Your task to perform on an android device: uninstall "ColorNote Notepad Notes" Image 0: 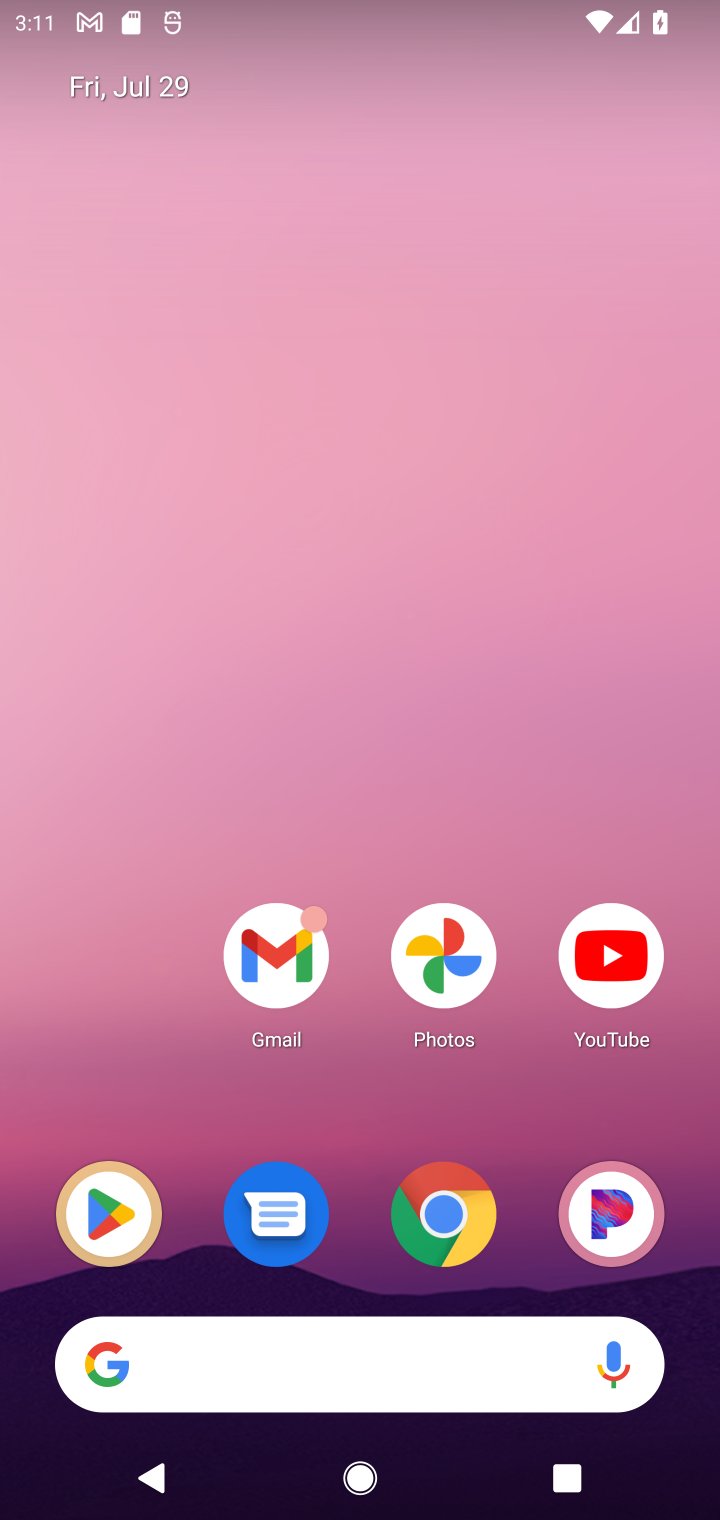
Step 0: click (128, 1184)
Your task to perform on an android device: uninstall "ColorNote Notepad Notes" Image 1: 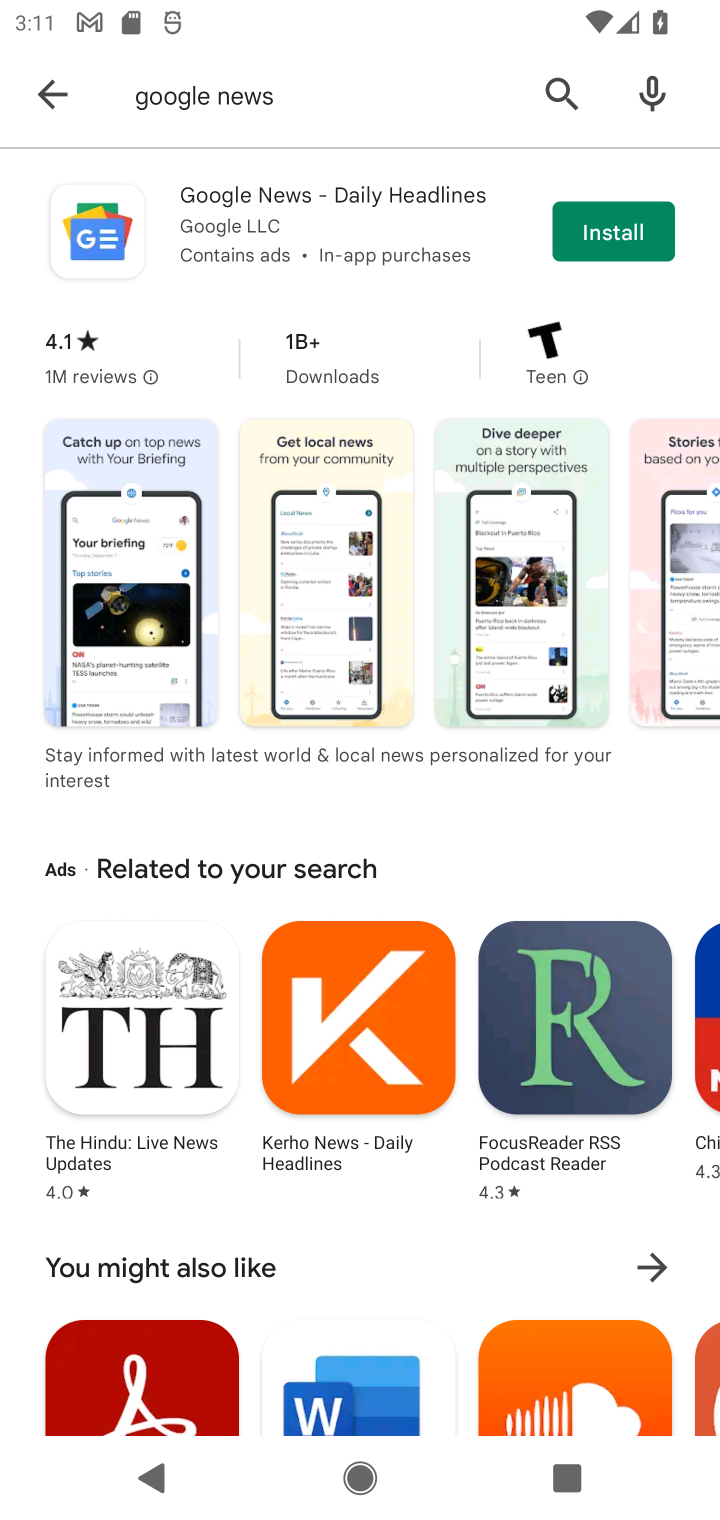
Step 1: click (555, 83)
Your task to perform on an android device: uninstall "ColorNote Notepad Notes" Image 2: 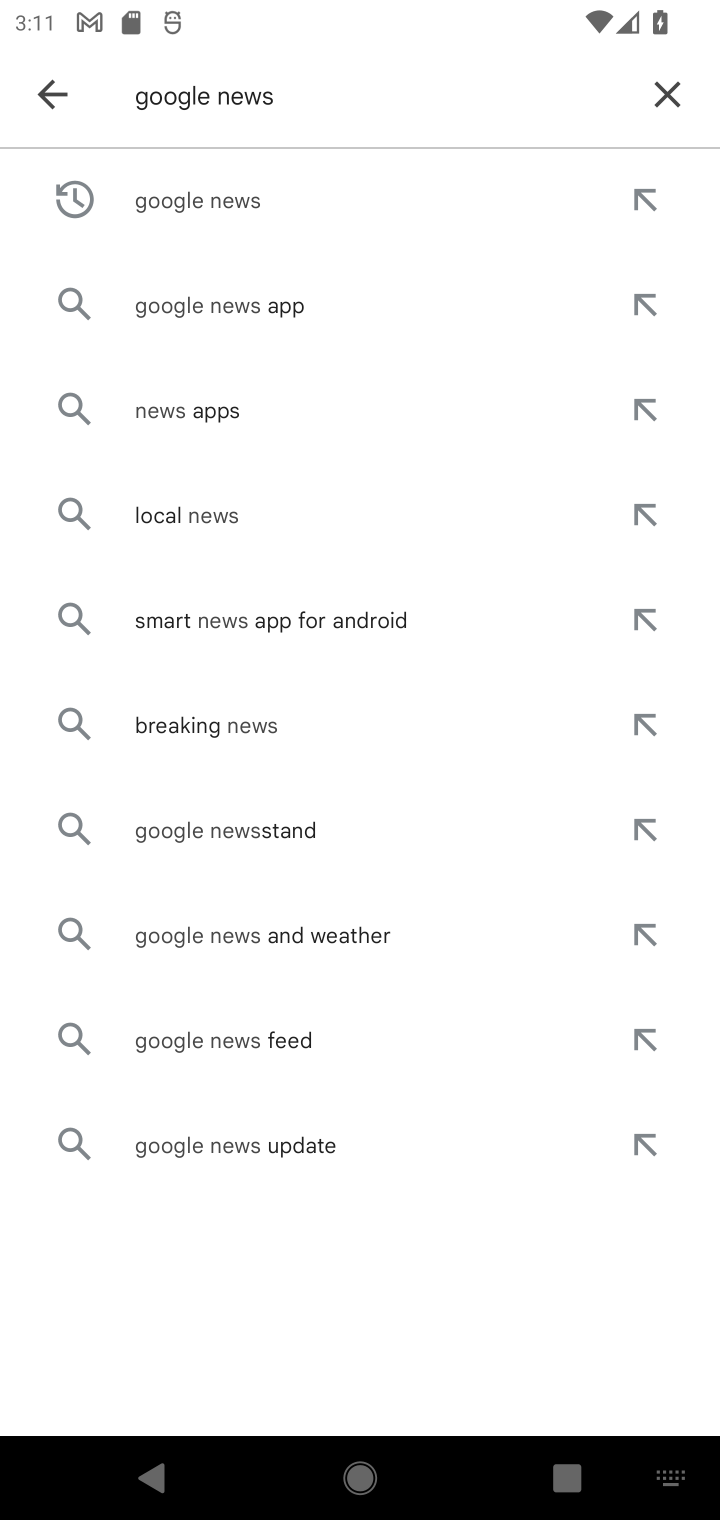
Step 2: click (673, 86)
Your task to perform on an android device: uninstall "ColorNote Notepad Notes" Image 3: 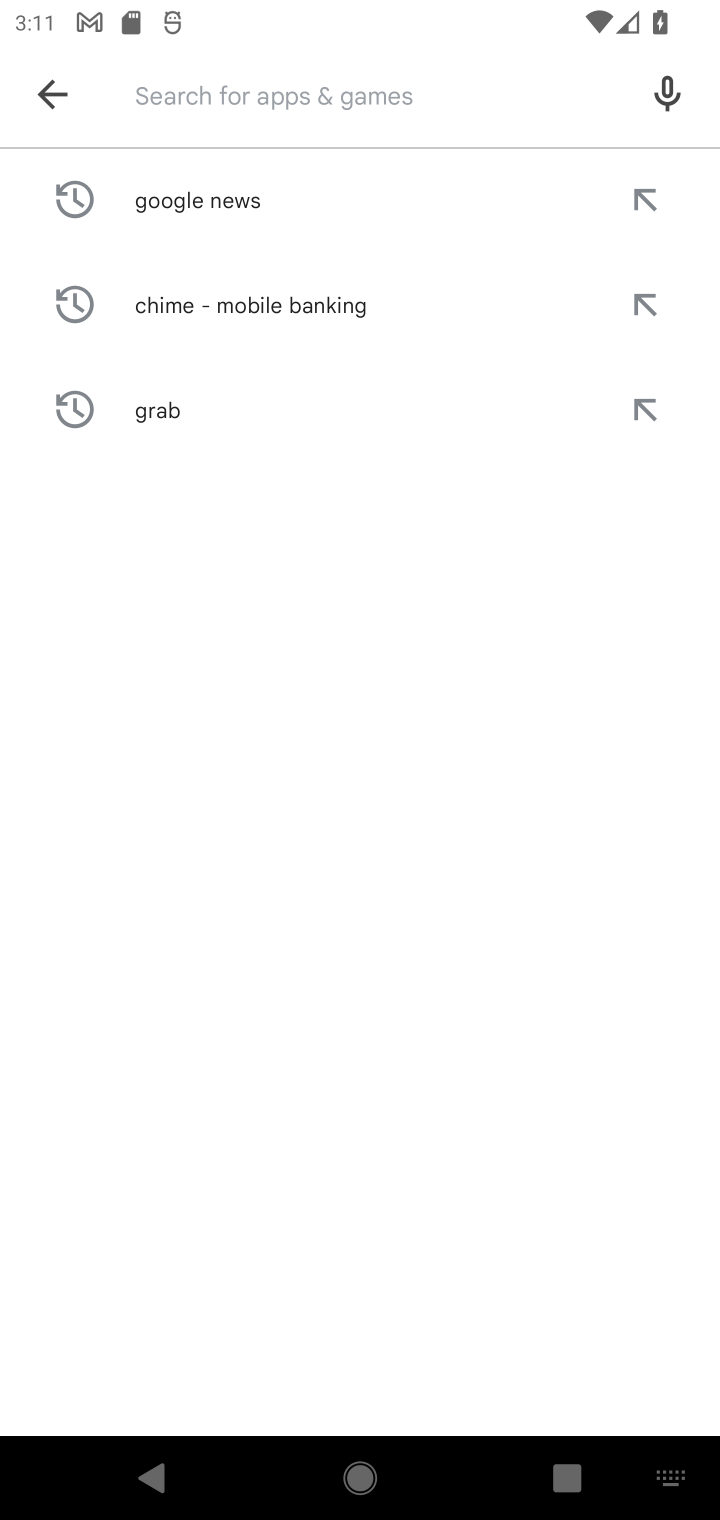
Step 3: type "ColorNote Notepad Notes"
Your task to perform on an android device: uninstall "ColorNote Notepad Notes" Image 4: 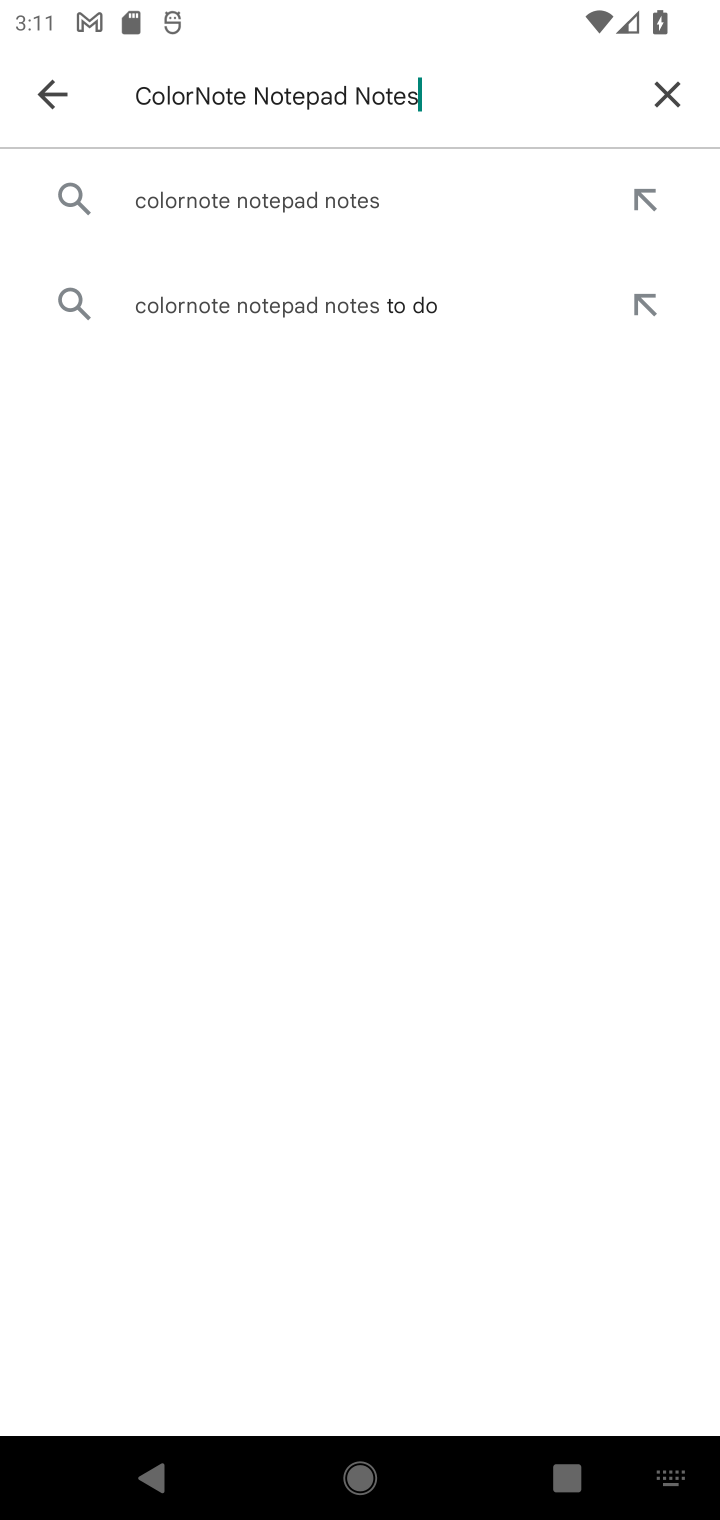
Step 4: click (360, 191)
Your task to perform on an android device: uninstall "ColorNote Notepad Notes" Image 5: 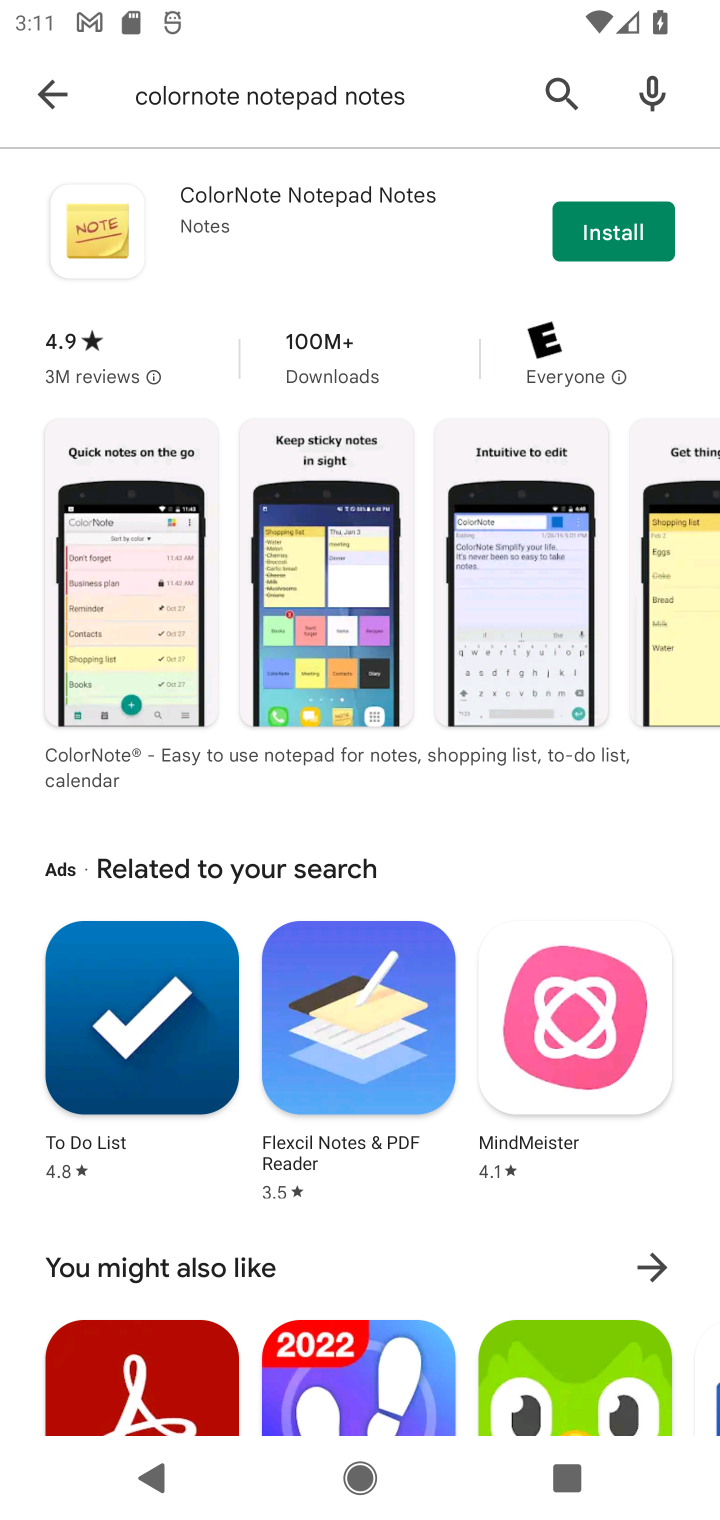
Step 5: task complete